Your task to perform on an android device: Open Chrome and go to the settings page Image 0: 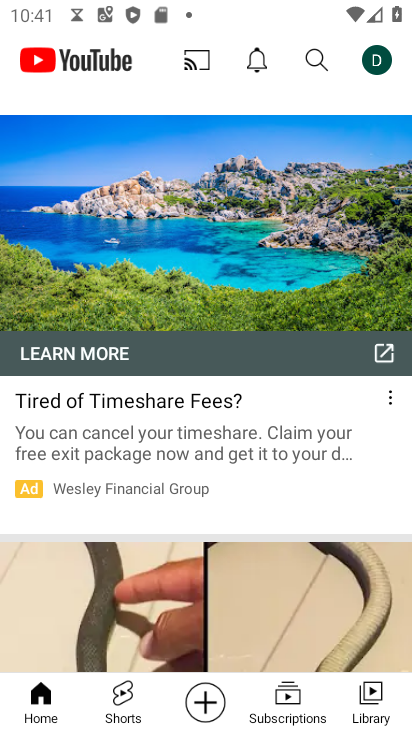
Step 0: press back button
Your task to perform on an android device: Open Chrome and go to the settings page Image 1: 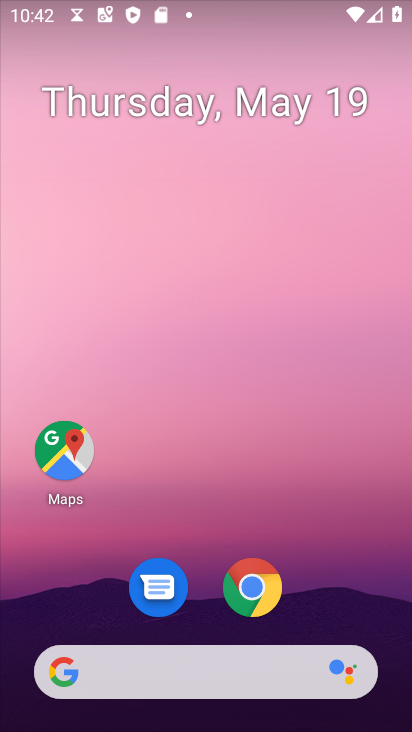
Step 1: click (260, 597)
Your task to perform on an android device: Open Chrome and go to the settings page Image 2: 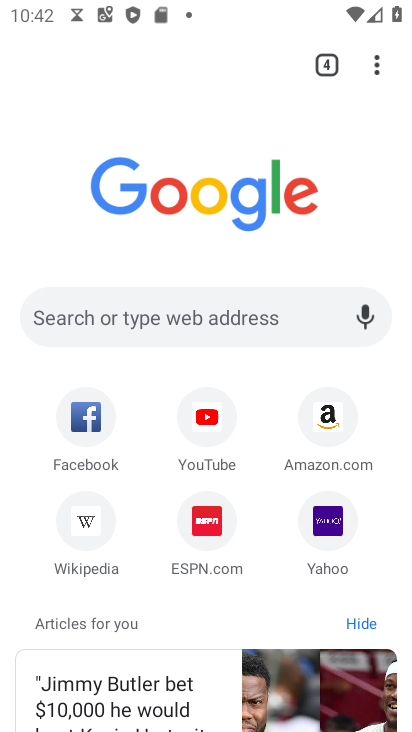
Step 2: task complete